Your task to perform on an android device: change text size in settings app Image 0: 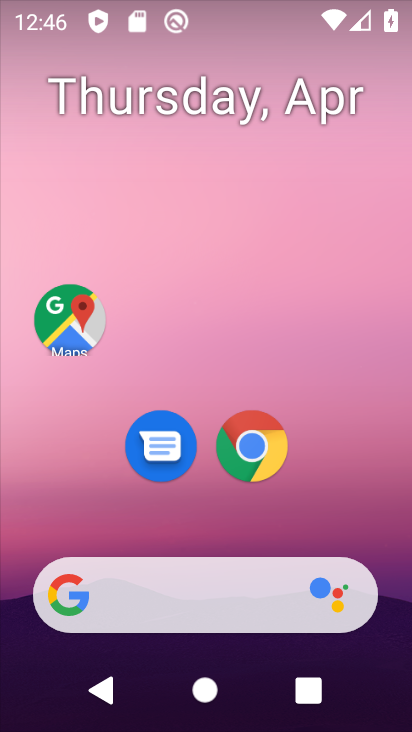
Step 0: drag from (188, 531) to (190, 31)
Your task to perform on an android device: change text size in settings app Image 1: 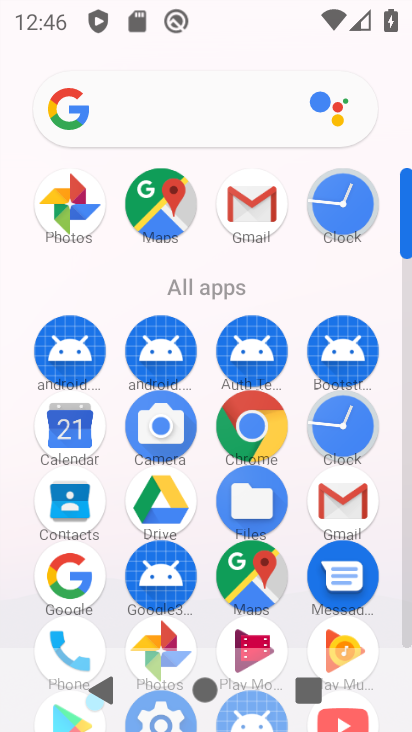
Step 1: drag from (116, 611) to (144, 143)
Your task to perform on an android device: change text size in settings app Image 2: 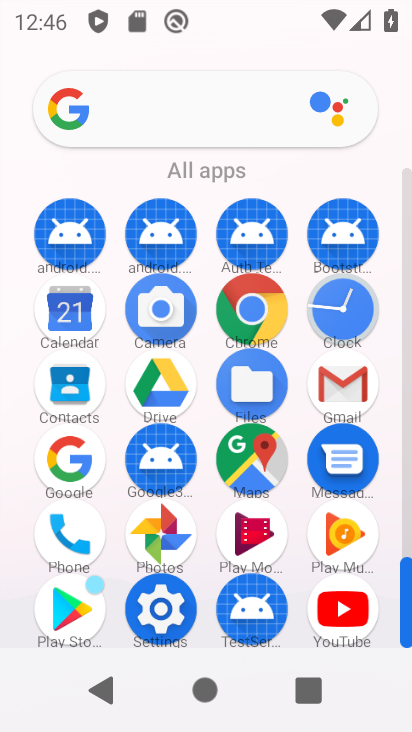
Step 2: click (149, 591)
Your task to perform on an android device: change text size in settings app Image 3: 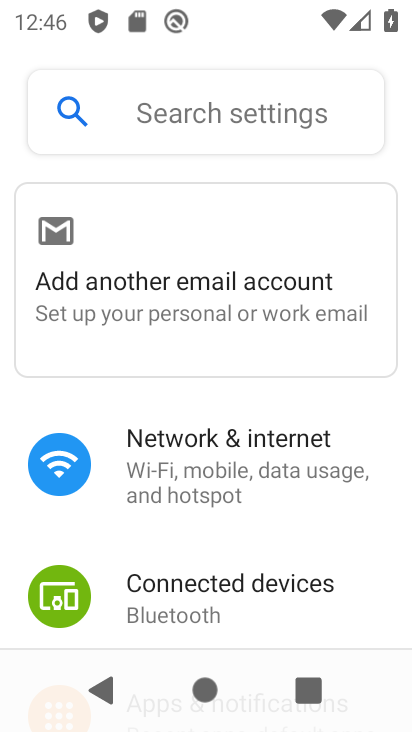
Step 3: drag from (149, 591) to (145, 337)
Your task to perform on an android device: change text size in settings app Image 4: 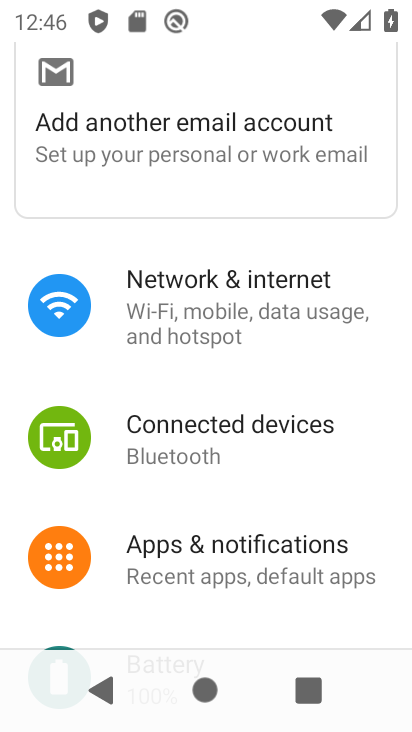
Step 4: drag from (124, 629) to (180, 178)
Your task to perform on an android device: change text size in settings app Image 5: 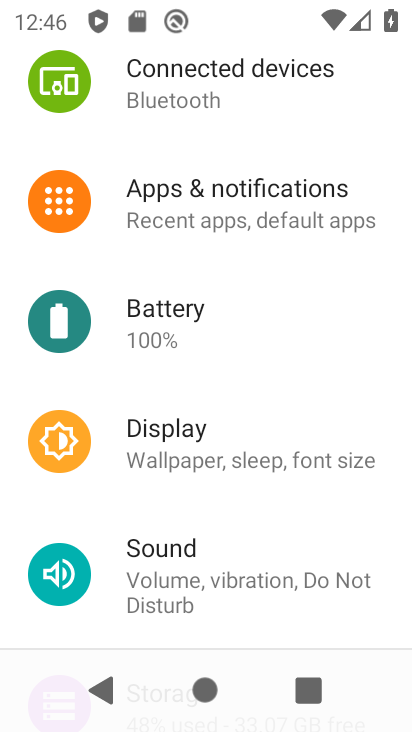
Step 5: click (237, 448)
Your task to perform on an android device: change text size in settings app Image 6: 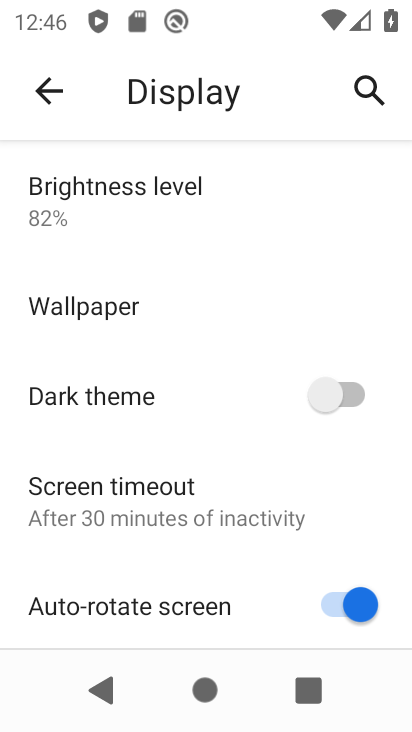
Step 6: drag from (88, 569) to (109, 121)
Your task to perform on an android device: change text size in settings app Image 7: 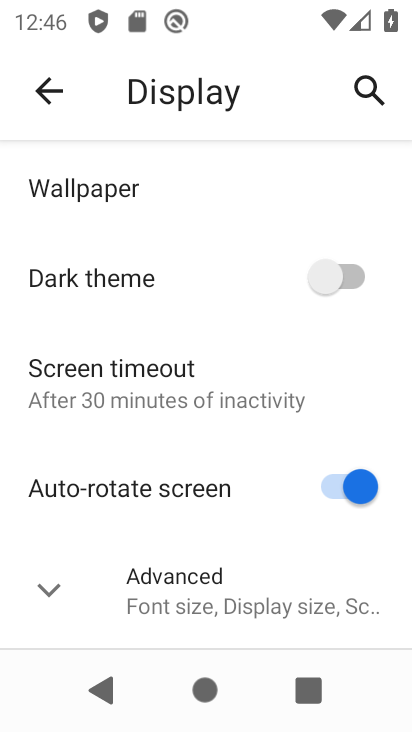
Step 7: click (208, 637)
Your task to perform on an android device: change text size in settings app Image 8: 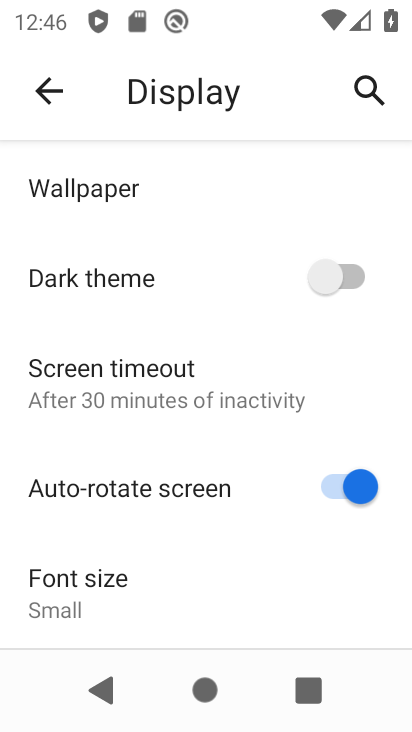
Step 8: click (118, 615)
Your task to perform on an android device: change text size in settings app Image 9: 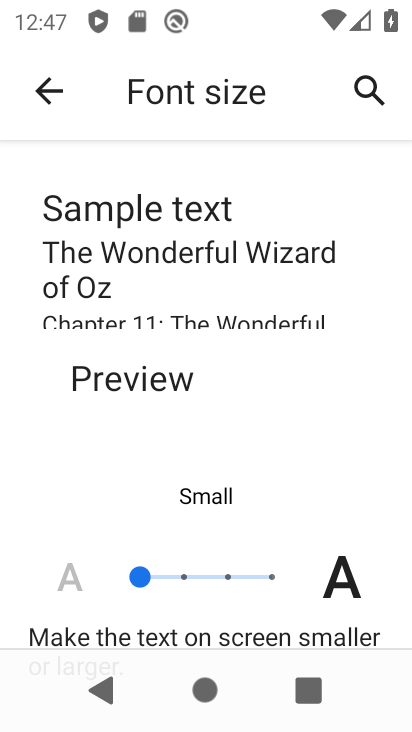
Step 9: click (274, 577)
Your task to perform on an android device: change text size in settings app Image 10: 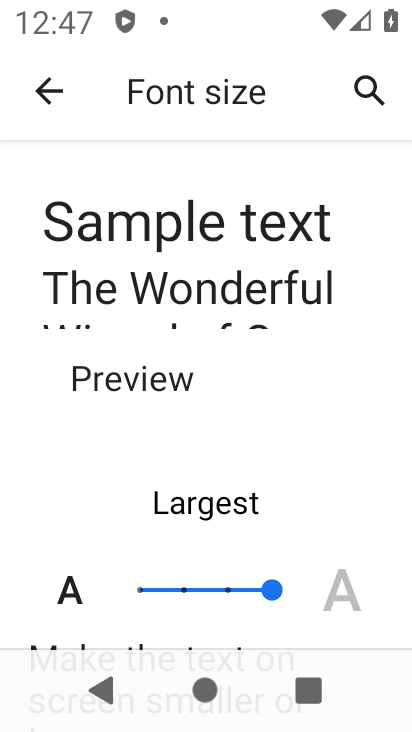
Step 10: task complete